Your task to perform on an android device: turn off notifications settings in the gmail app Image 0: 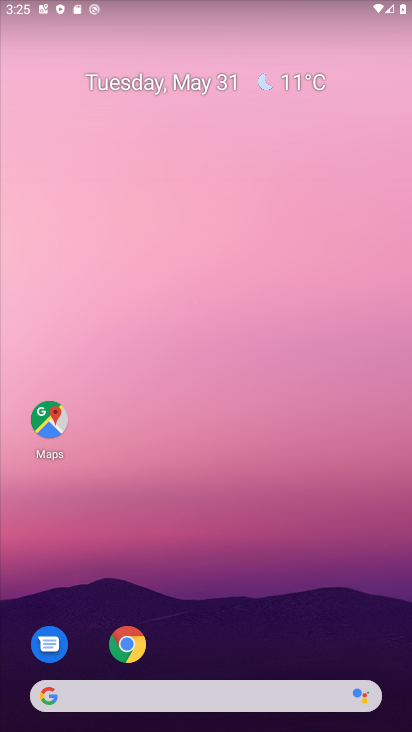
Step 0: drag from (257, 582) to (264, 5)
Your task to perform on an android device: turn off notifications settings in the gmail app Image 1: 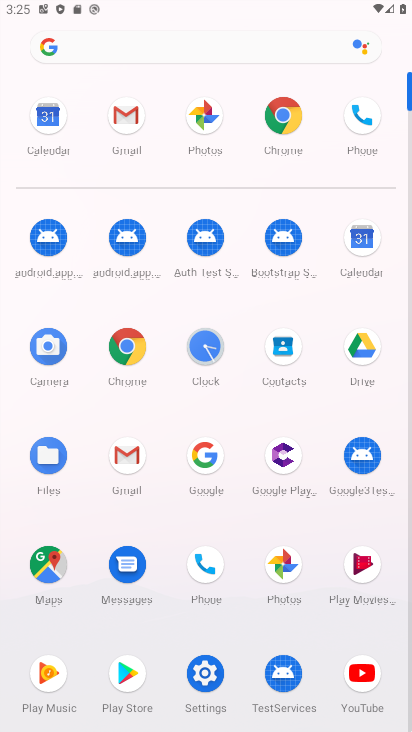
Step 1: click (124, 124)
Your task to perform on an android device: turn off notifications settings in the gmail app Image 2: 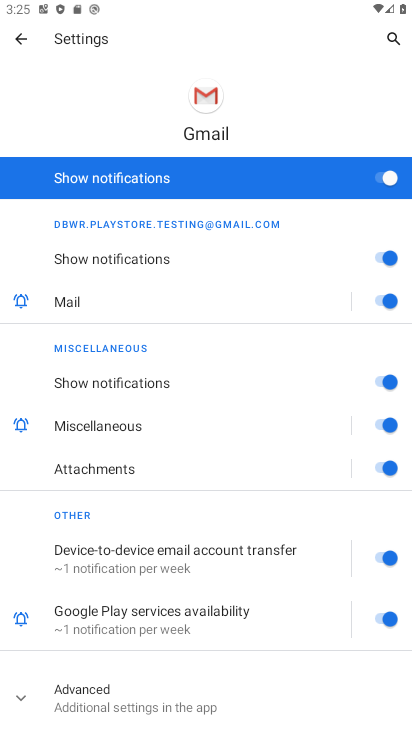
Step 2: click (383, 182)
Your task to perform on an android device: turn off notifications settings in the gmail app Image 3: 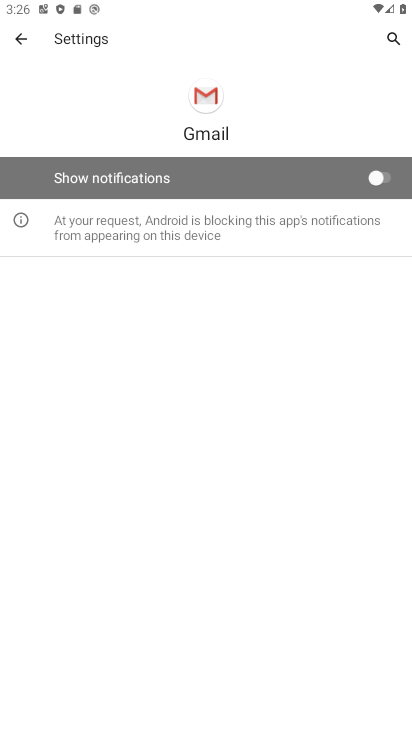
Step 3: task complete